Your task to perform on an android device: turn off location history Image 0: 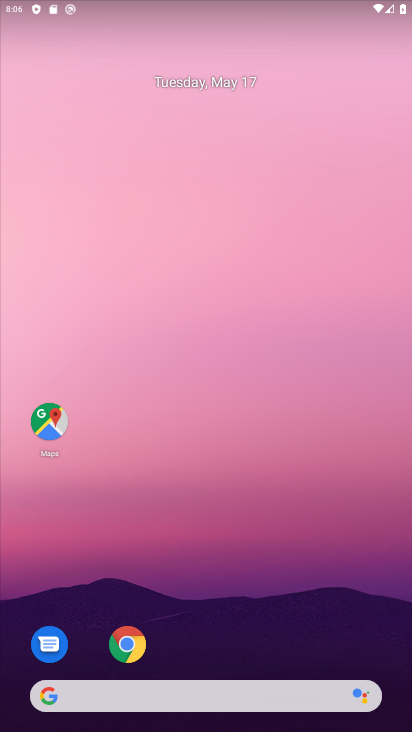
Step 0: drag from (192, 625) to (217, 59)
Your task to perform on an android device: turn off location history Image 1: 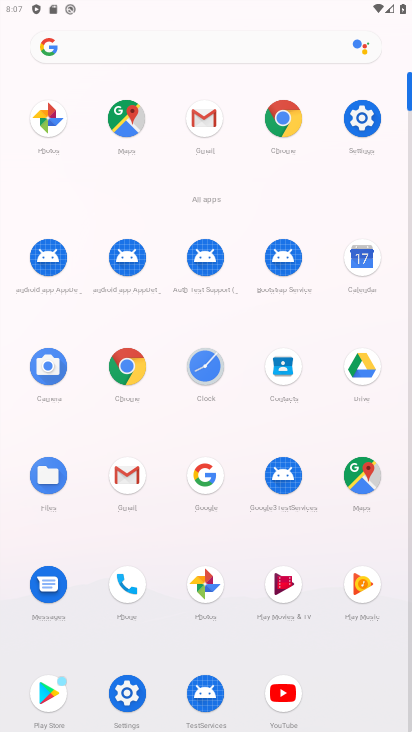
Step 1: click (363, 129)
Your task to perform on an android device: turn off location history Image 2: 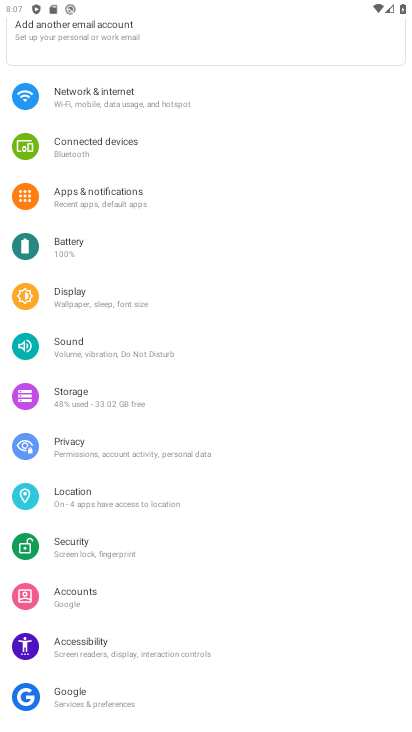
Step 2: click (68, 500)
Your task to perform on an android device: turn off location history Image 3: 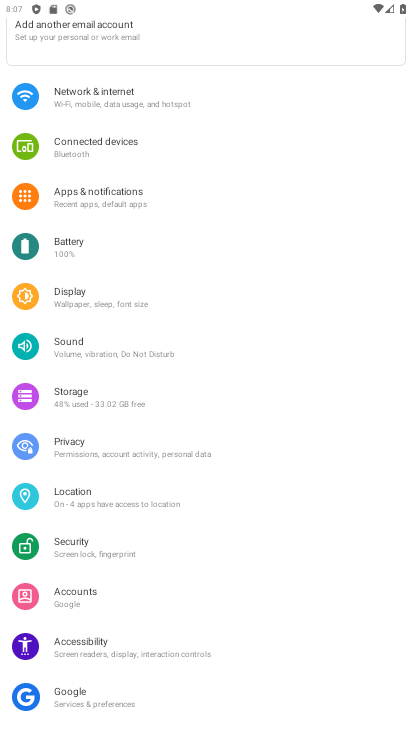
Step 3: click (80, 495)
Your task to perform on an android device: turn off location history Image 4: 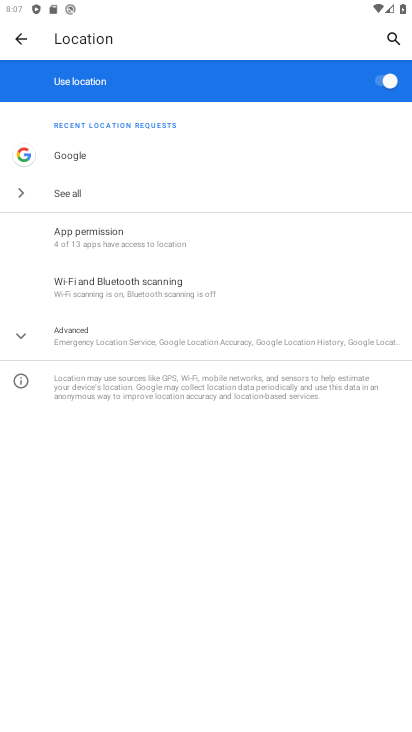
Step 4: click (387, 75)
Your task to perform on an android device: turn off location history Image 5: 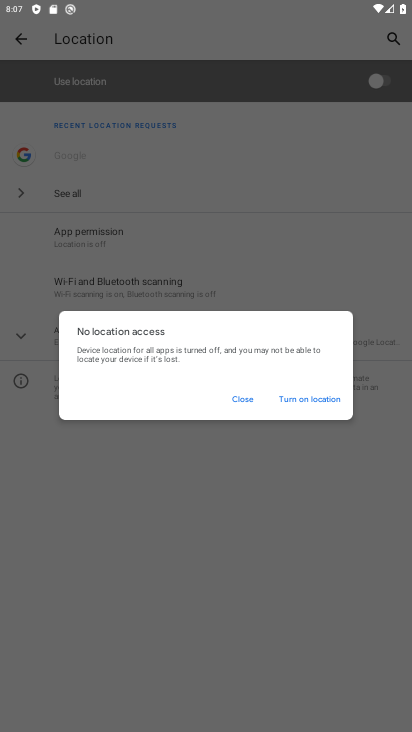
Step 5: click (230, 404)
Your task to perform on an android device: turn off location history Image 6: 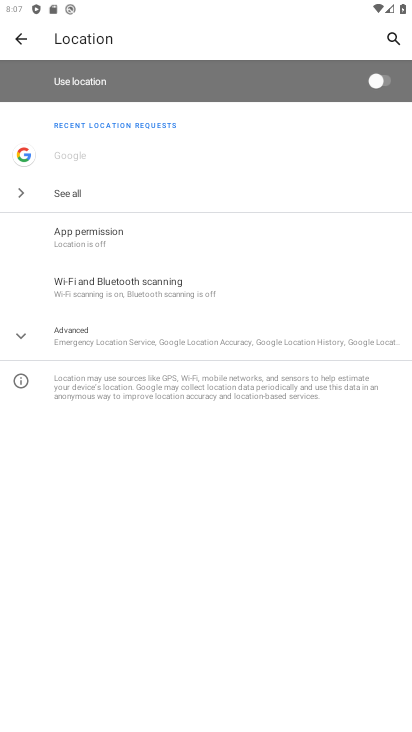
Step 6: task complete